Your task to perform on an android device: turn off translation in the chrome app Image 0: 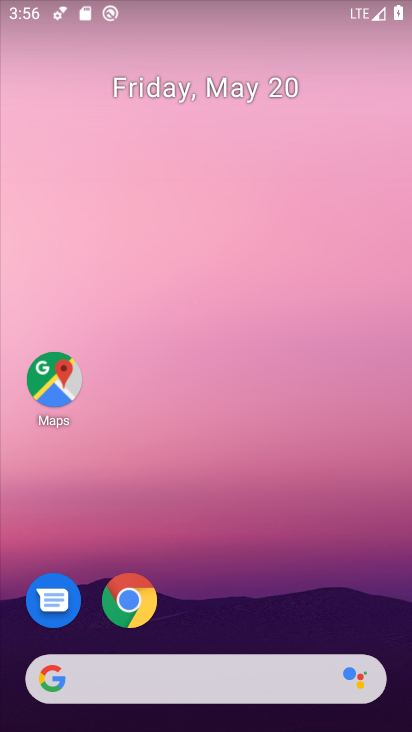
Step 0: drag from (341, 625) to (344, 316)
Your task to perform on an android device: turn off translation in the chrome app Image 1: 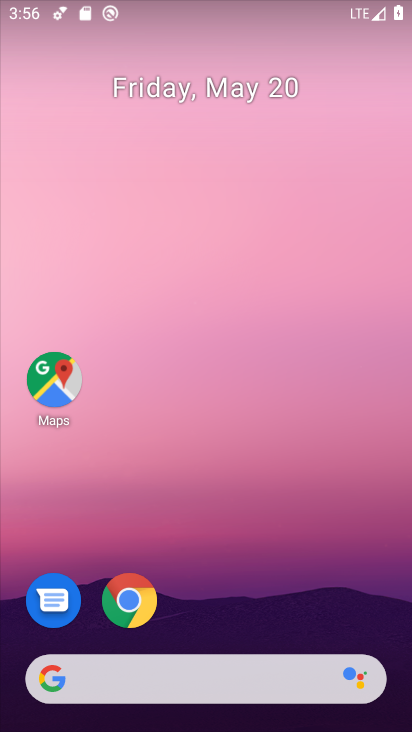
Step 1: drag from (345, 609) to (386, 259)
Your task to perform on an android device: turn off translation in the chrome app Image 2: 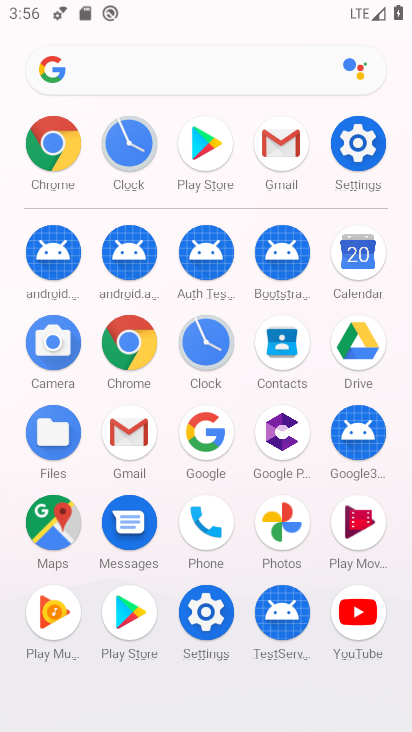
Step 2: click (135, 354)
Your task to perform on an android device: turn off translation in the chrome app Image 3: 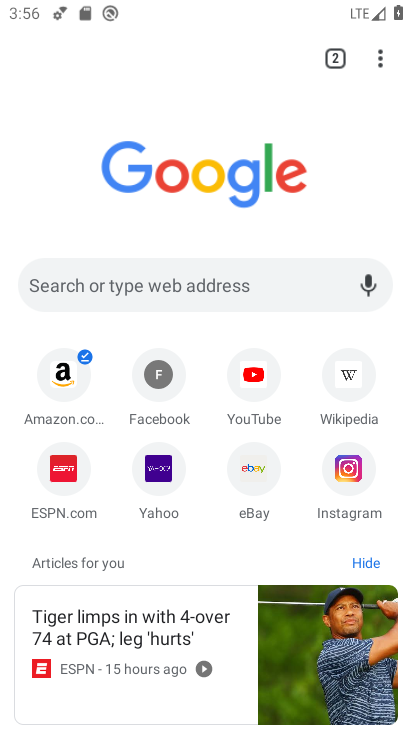
Step 3: click (380, 70)
Your task to perform on an android device: turn off translation in the chrome app Image 4: 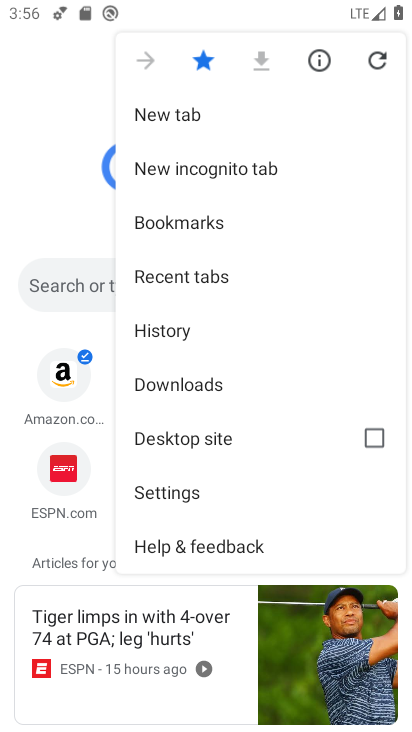
Step 4: click (190, 494)
Your task to perform on an android device: turn off translation in the chrome app Image 5: 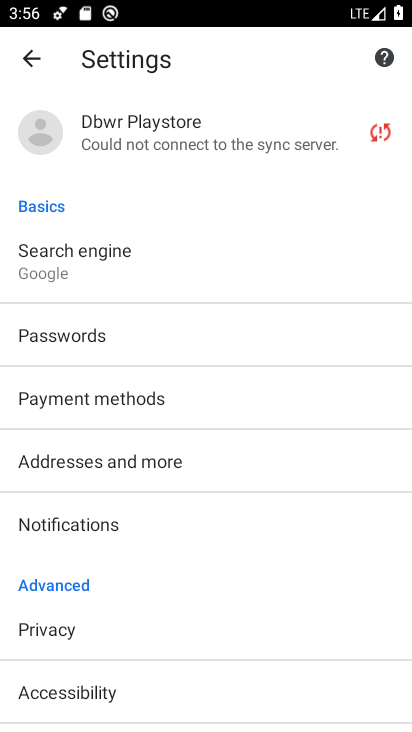
Step 5: drag from (263, 540) to (275, 473)
Your task to perform on an android device: turn off translation in the chrome app Image 6: 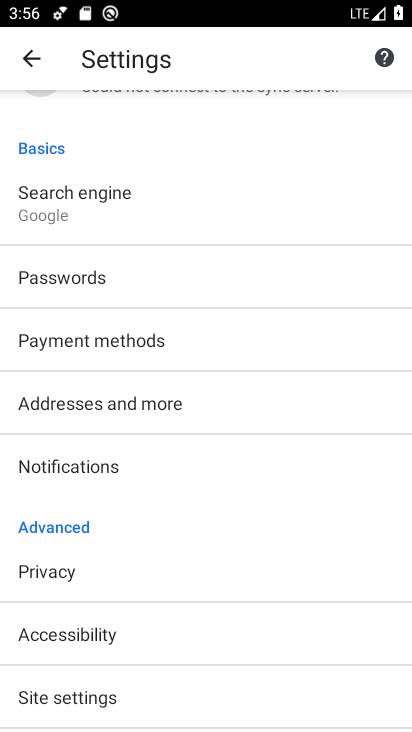
Step 6: drag from (287, 584) to (286, 472)
Your task to perform on an android device: turn off translation in the chrome app Image 7: 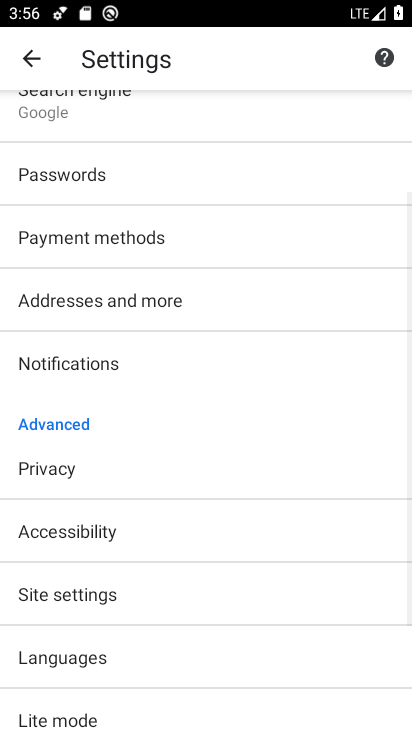
Step 7: drag from (306, 637) to (306, 542)
Your task to perform on an android device: turn off translation in the chrome app Image 8: 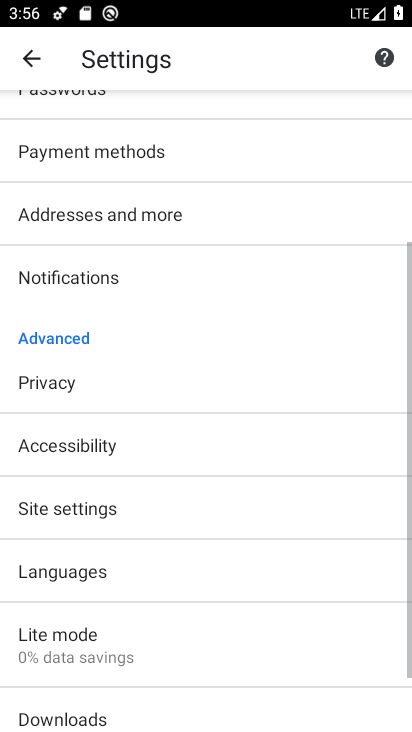
Step 8: drag from (312, 638) to (318, 546)
Your task to perform on an android device: turn off translation in the chrome app Image 9: 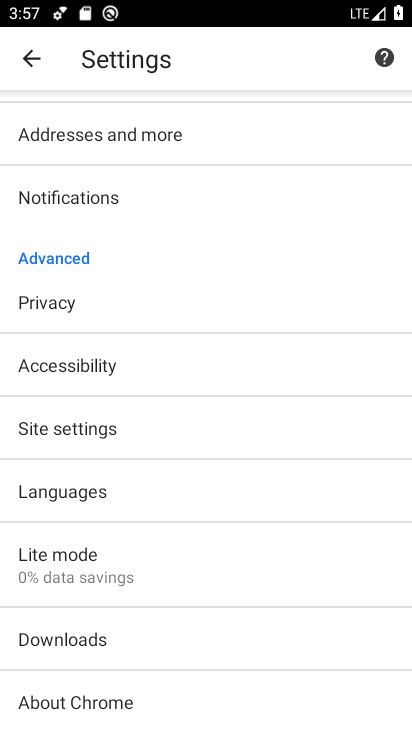
Step 9: drag from (335, 631) to (333, 545)
Your task to perform on an android device: turn off translation in the chrome app Image 10: 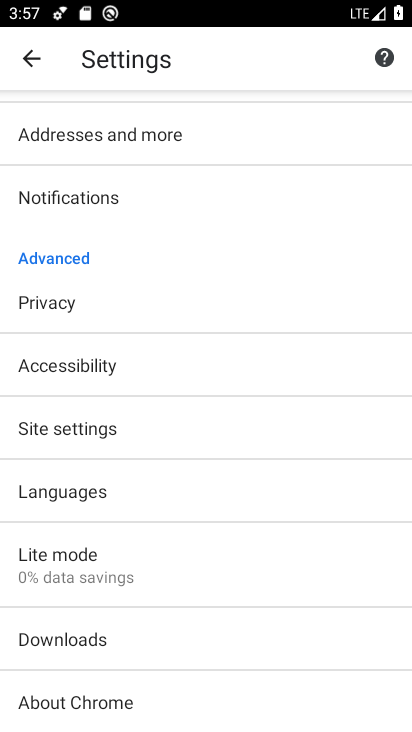
Step 10: drag from (333, 435) to (321, 522)
Your task to perform on an android device: turn off translation in the chrome app Image 11: 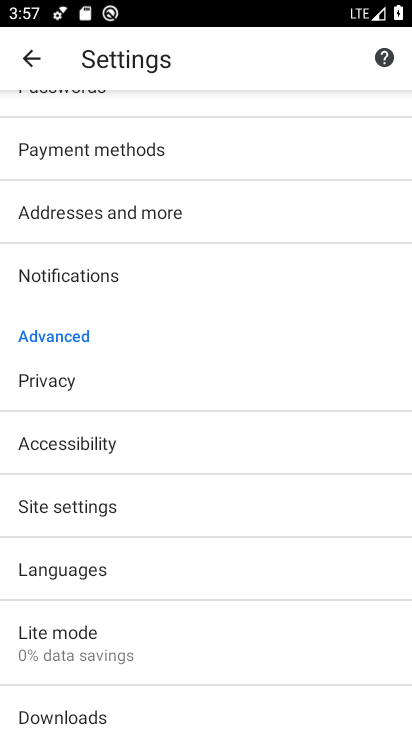
Step 11: click (266, 567)
Your task to perform on an android device: turn off translation in the chrome app Image 12: 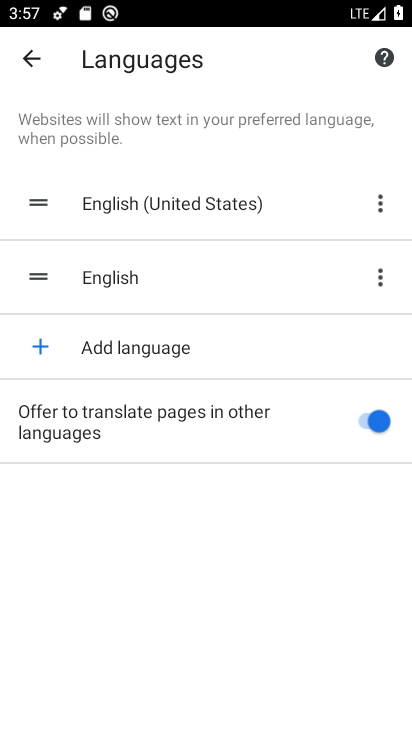
Step 12: click (367, 437)
Your task to perform on an android device: turn off translation in the chrome app Image 13: 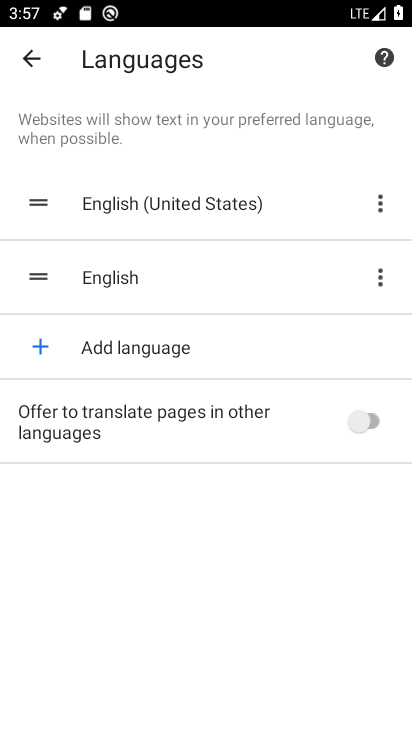
Step 13: task complete